Your task to perform on an android device: turn vacation reply on in the gmail app Image 0: 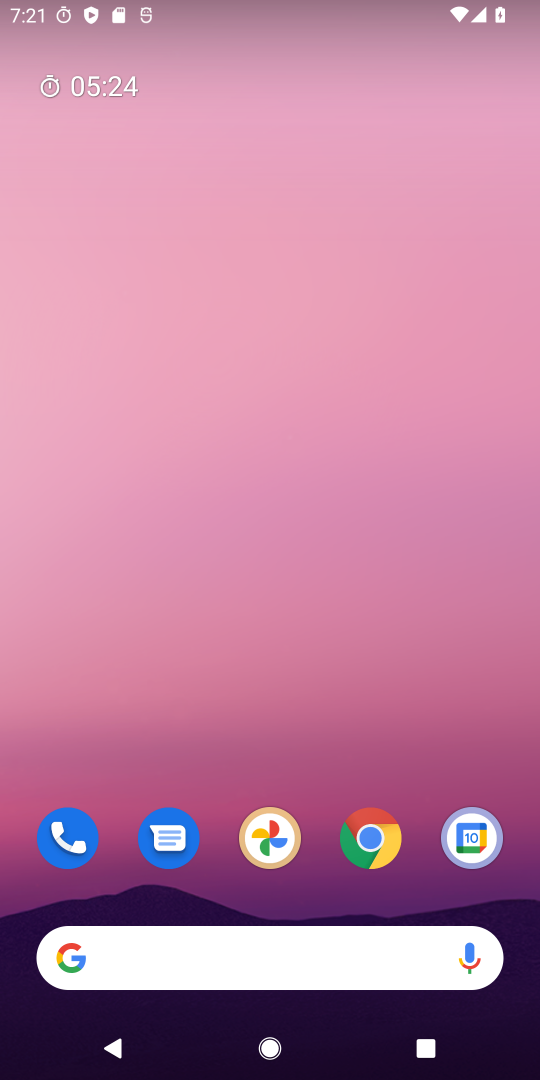
Step 0: drag from (313, 747) to (379, 46)
Your task to perform on an android device: turn vacation reply on in the gmail app Image 1: 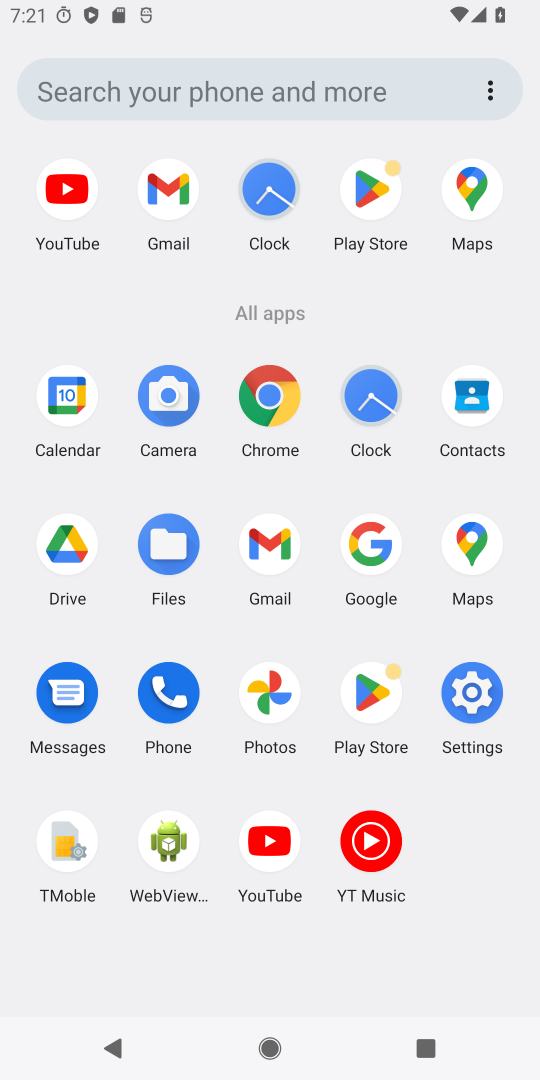
Step 1: click (275, 542)
Your task to perform on an android device: turn vacation reply on in the gmail app Image 2: 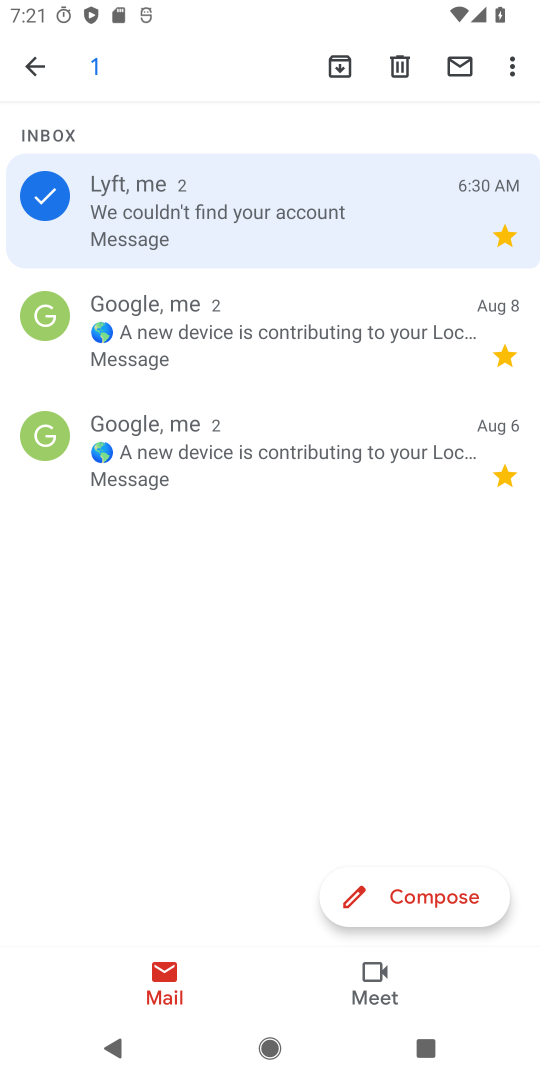
Step 2: click (37, 65)
Your task to perform on an android device: turn vacation reply on in the gmail app Image 3: 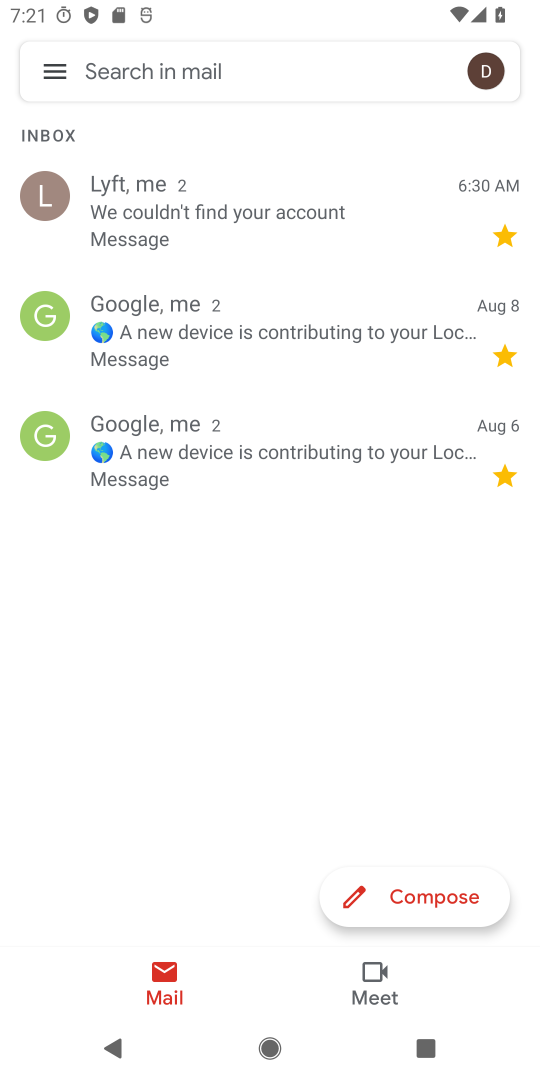
Step 3: click (52, 68)
Your task to perform on an android device: turn vacation reply on in the gmail app Image 4: 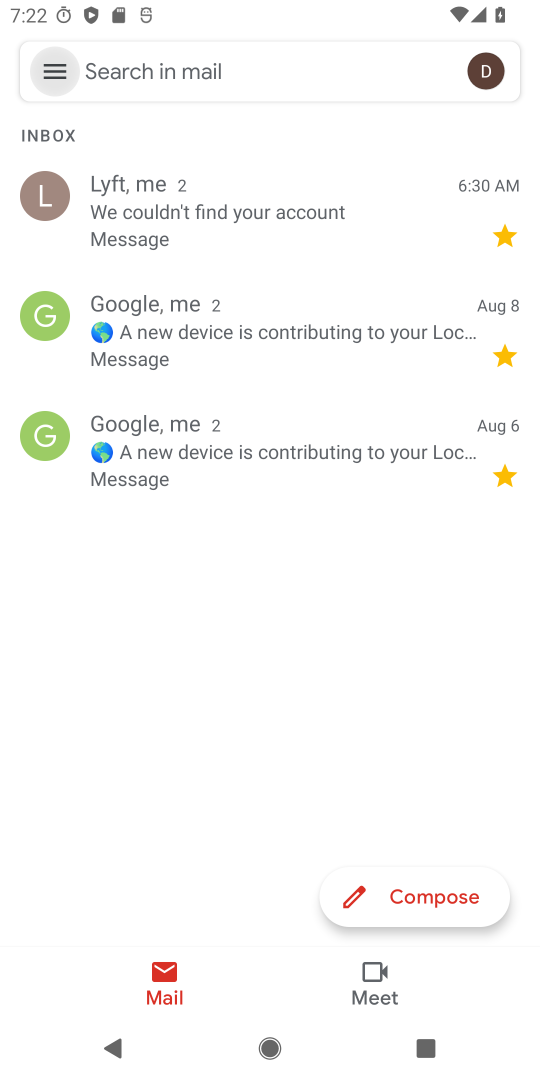
Step 4: click (52, 65)
Your task to perform on an android device: turn vacation reply on in the gmail app Image 5: 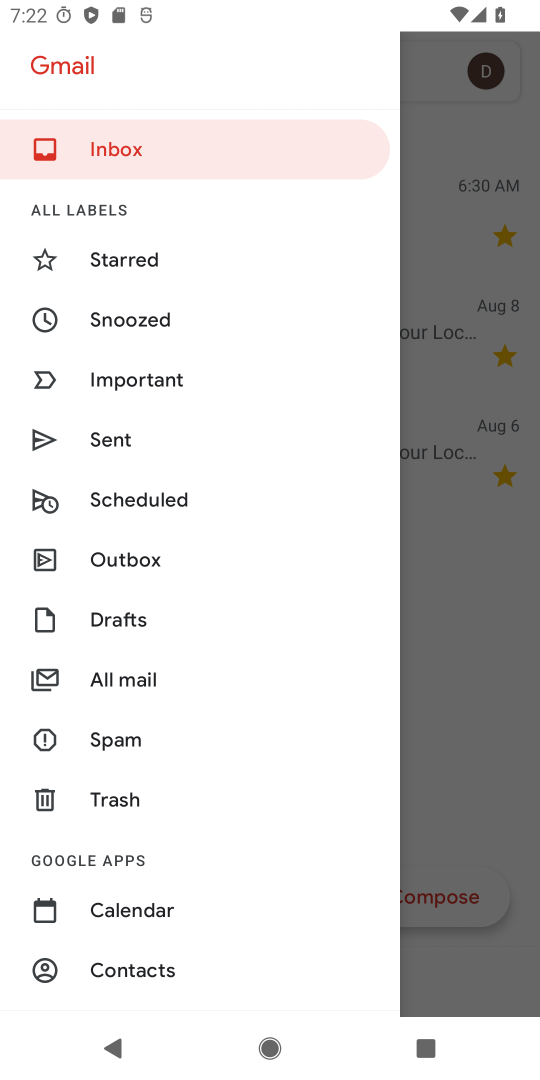
Step 5: drag from (199, 883) to (333, 347)
Your task to perform on an android device: turn vacation reply on in the gmail app Image 6: 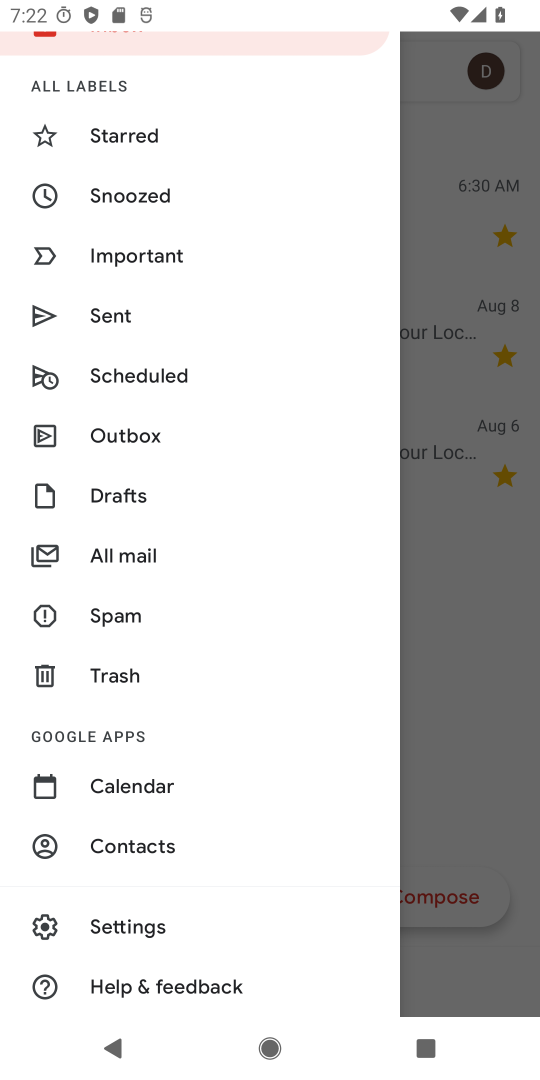
Step 6: click (106, 912)
Your task to perform on an android device: turn vacation reply on in the gmail app Image 7: 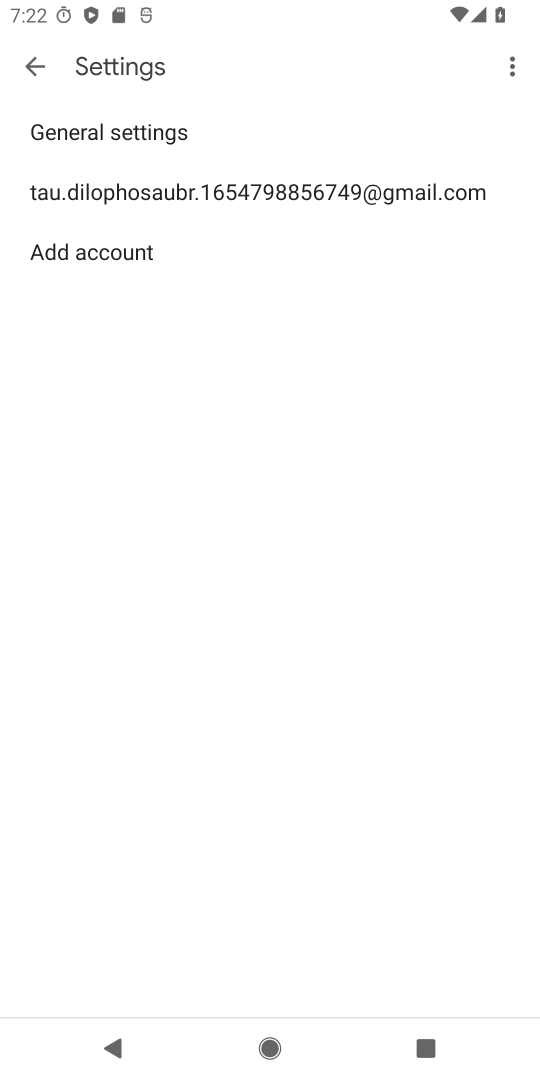
Step 7: click (150, 195)
Your task to perform on an android device: turn vacation reply on in the gmail app Image 8: 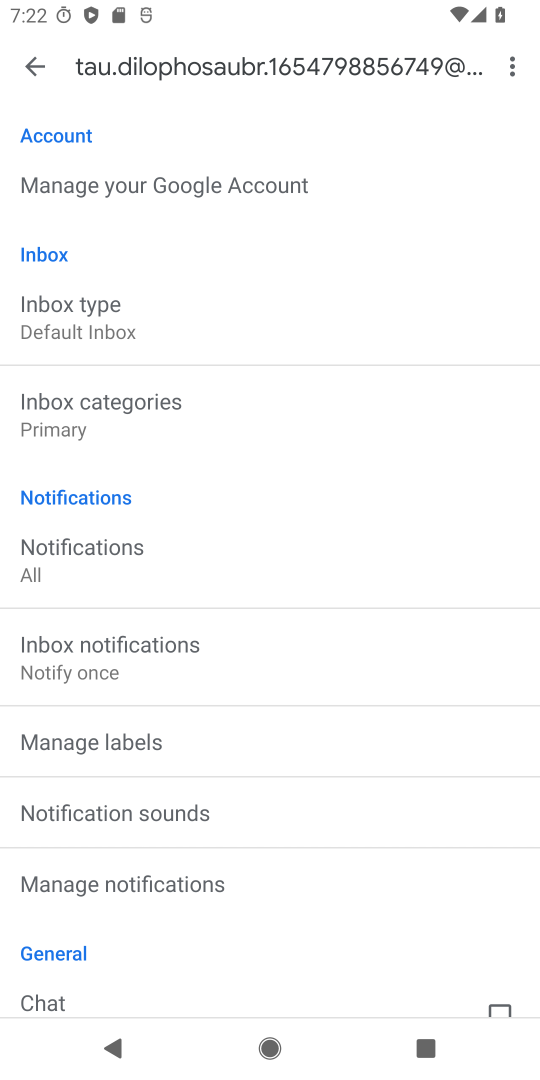
Step 8: drag from (239, 869) to (347, 249)
Your task to perform on an android device: turn vacation reply on in the gmail app Image 9: 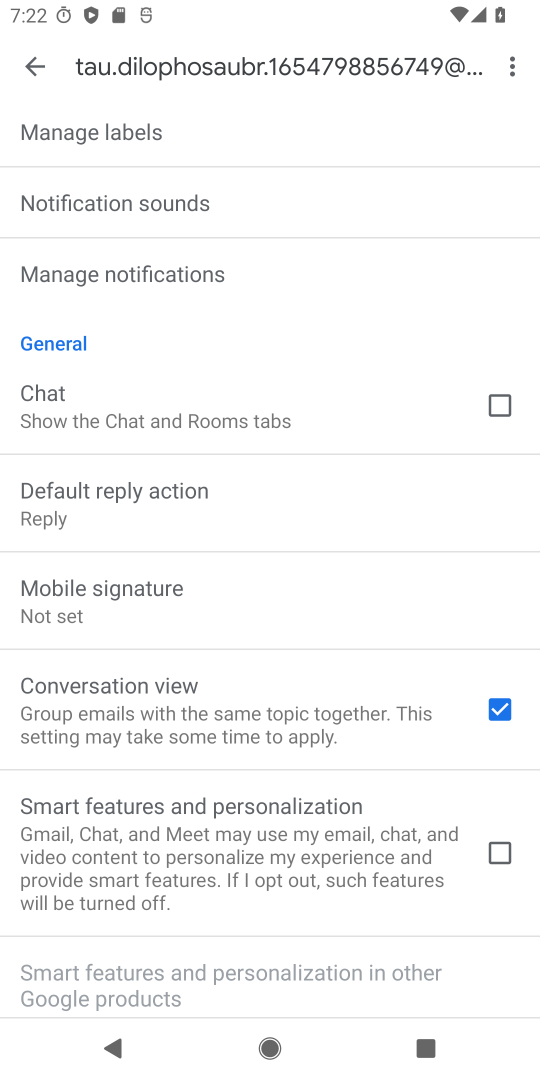
Step 9: drag from (178, 897) to (330, 394)
Your task to perform on an android device: turn vacation reply on in the gmail app Image 10: 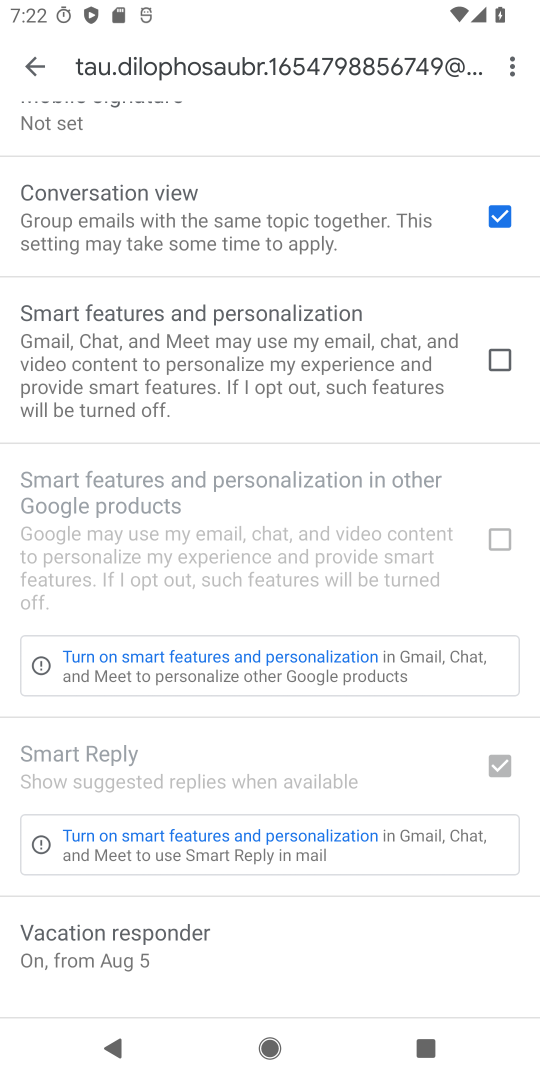
Step 10: click (115, 952)
Your task to perform on an android device: turn vacation reply on in the gmail app Image 11: 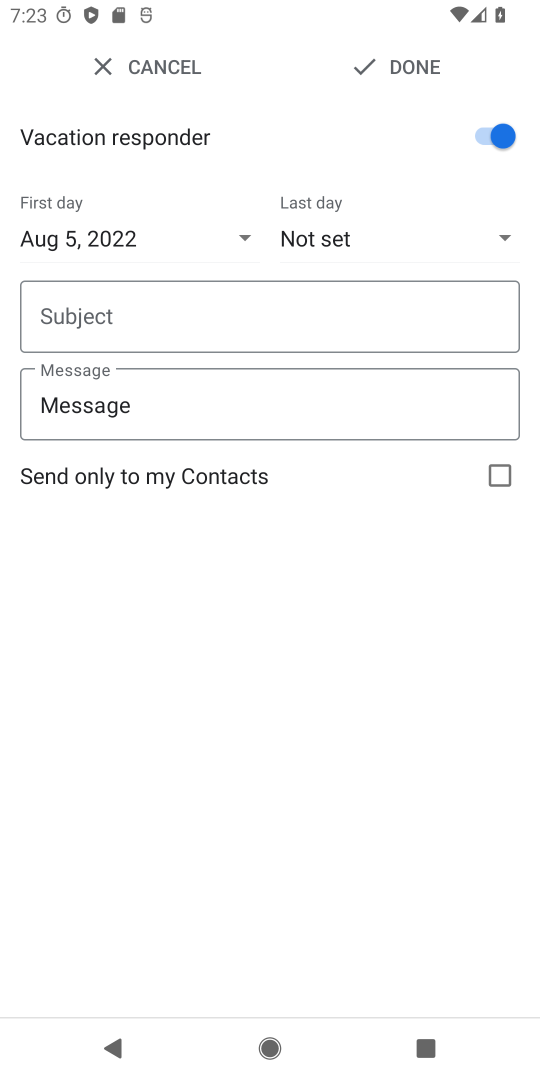
Step 11: click (393, 70)
Your task to perform on an android device: turn vacation reply on in the gmail app Image 12: 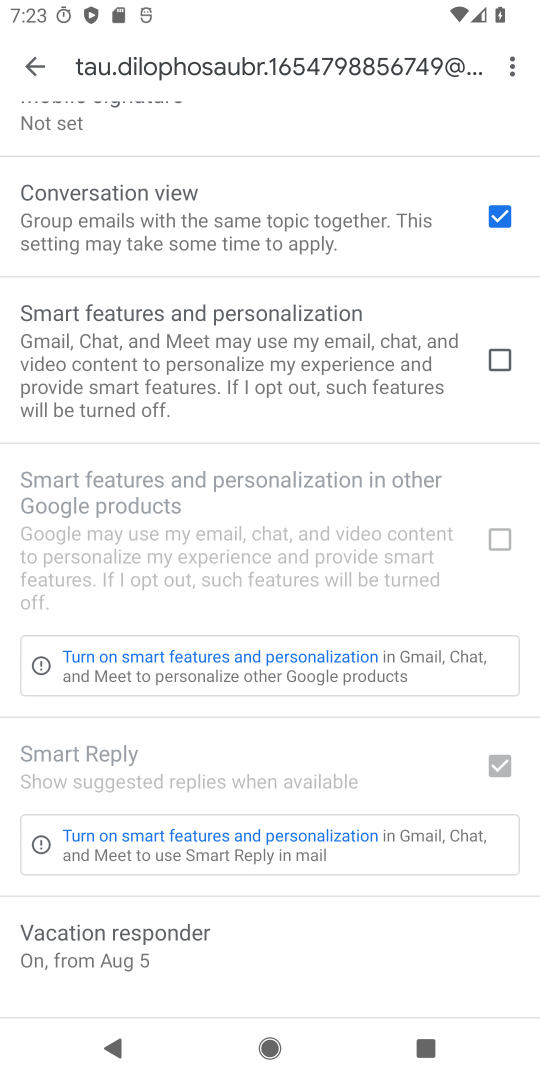
Step 12: task complete